Your task to perform on an android device: toggle javascript in the chrome app Image 0: 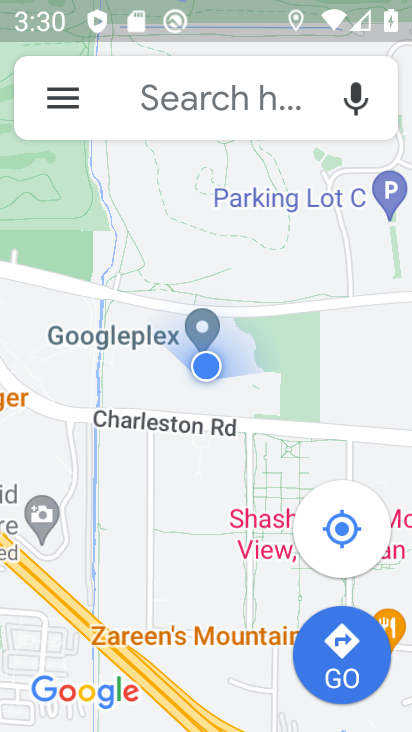
Step 0: press home button
Your task to perform on an android device: toggle javascript in the chrome app Image 1: 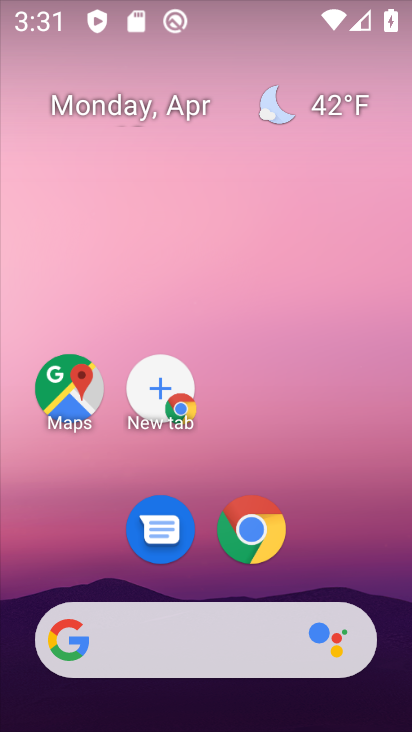
Step 1: click (262, 538)
Your task to perform on an android device: toggle javascript in the chrome app Image 2: 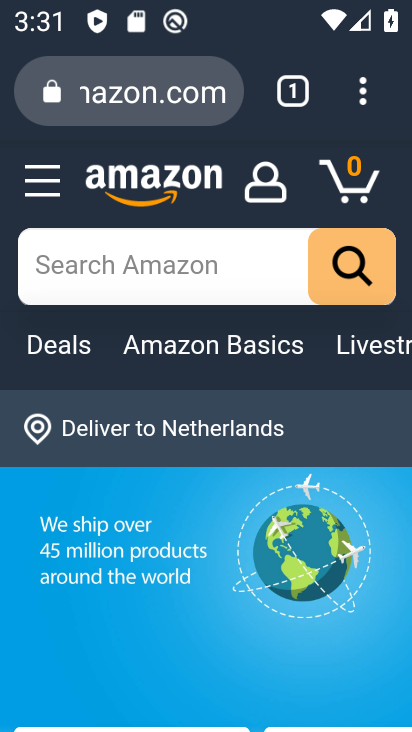
Step 2: click (368, 78)
Your task to perform on an android device: toggle javascript in the chrome app Image 3: 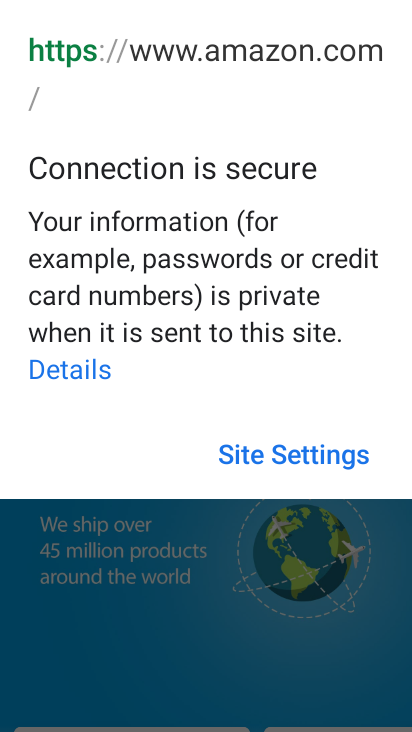
Step 3: click (260, 579)
Your task to perform on an android device: toggle javascript in the chrome app Image 4: 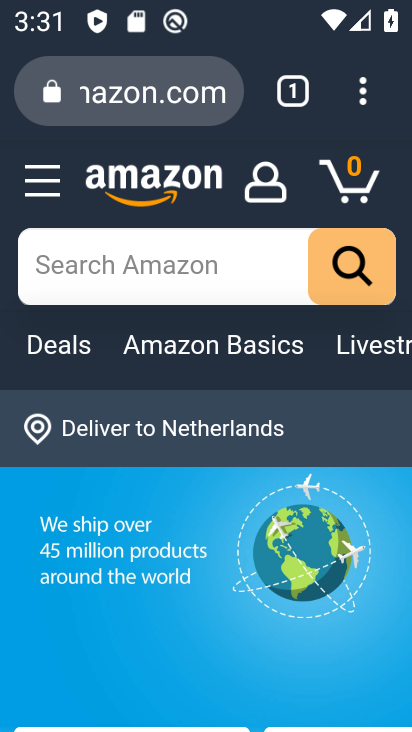
Step 4: drag from (352, 72) to (144, 552)
Your task to perform on an android device: toggle javascript in the chrome app Image 5: 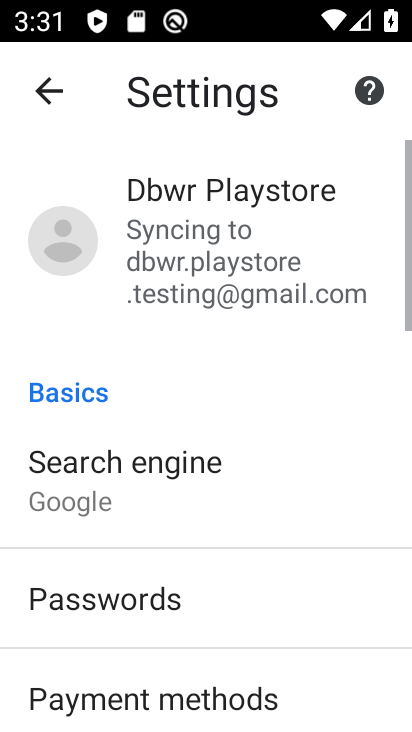
Step 5: drag from (241, 622) to (307, 84)
Your task to perform on an android device: toggle javascript in the chrome app Image 6: 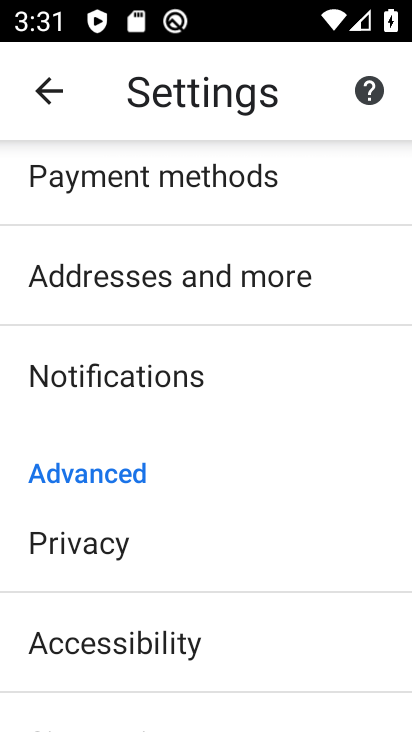
Step 6: drag from (150, 608) to (277, 190)
Your task to perform on an android device: toggle javascript in the chrome app Image 7: 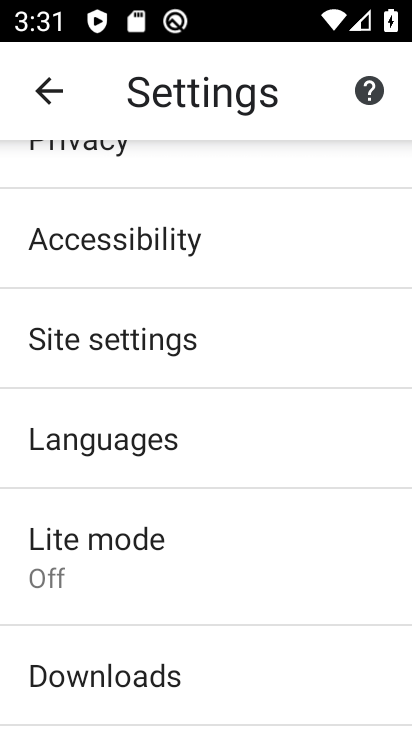
Step 7: click (96, 352)
Your task to perform on an android device: toggle javascript in the chrome app Image 8: 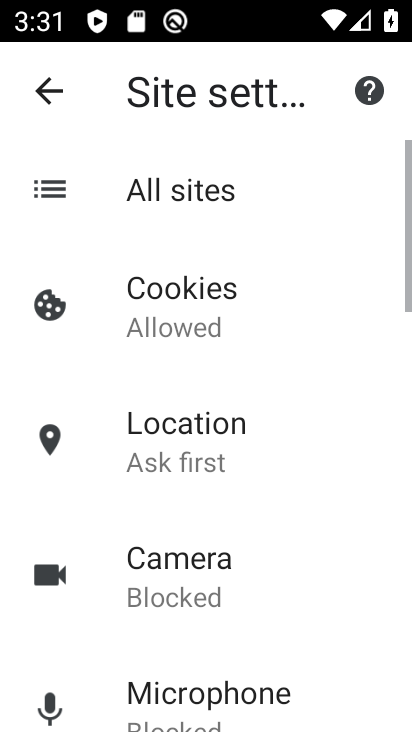
Step 8: drag from (214, 597) to (301, 122)
Your task to perform on an android device: toggle javascript in the chrome app Image 9: 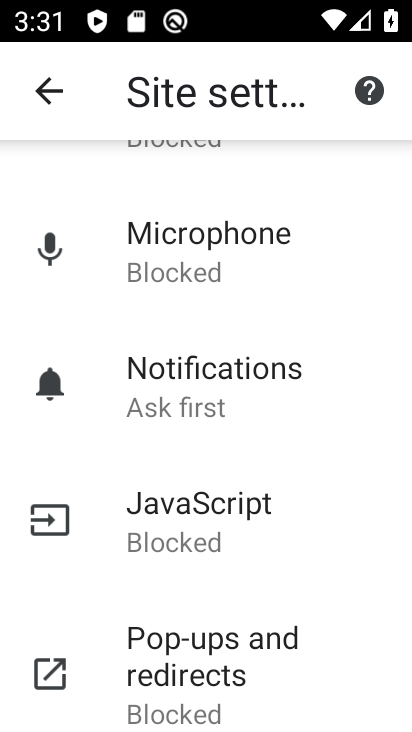
Step 9: click (196, 524)
Your task to perform on an android device: toggle javascript in the chrome app Image 10: 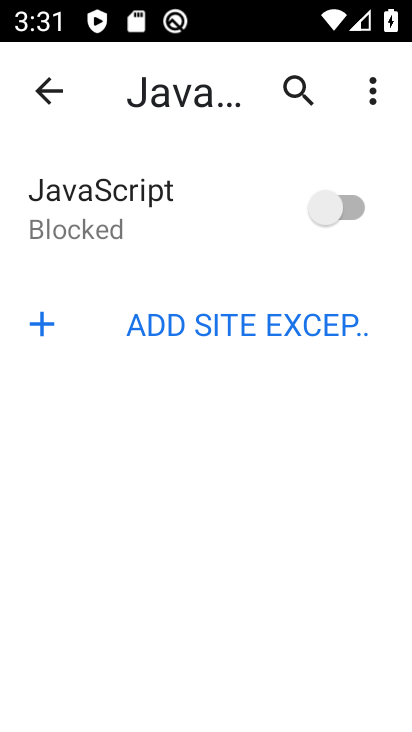
Step 10: click (331, 212)
Your task to perform on an android device: toggle javascript in the chrome app Image 11: 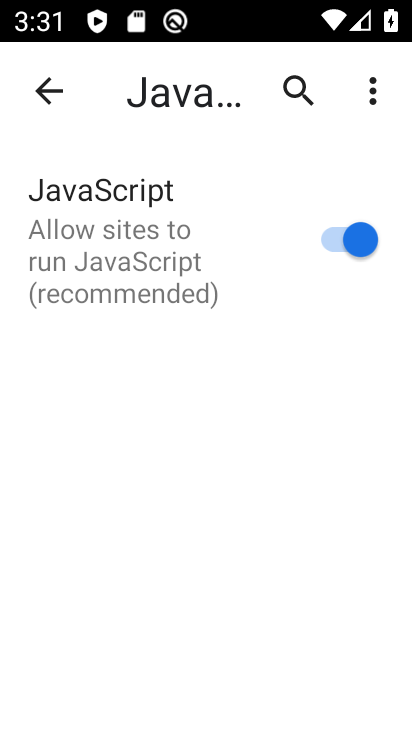
Step 11: task complete